Your task to perform on an android device: allow notifications from all sites in the chrome app Image 0: 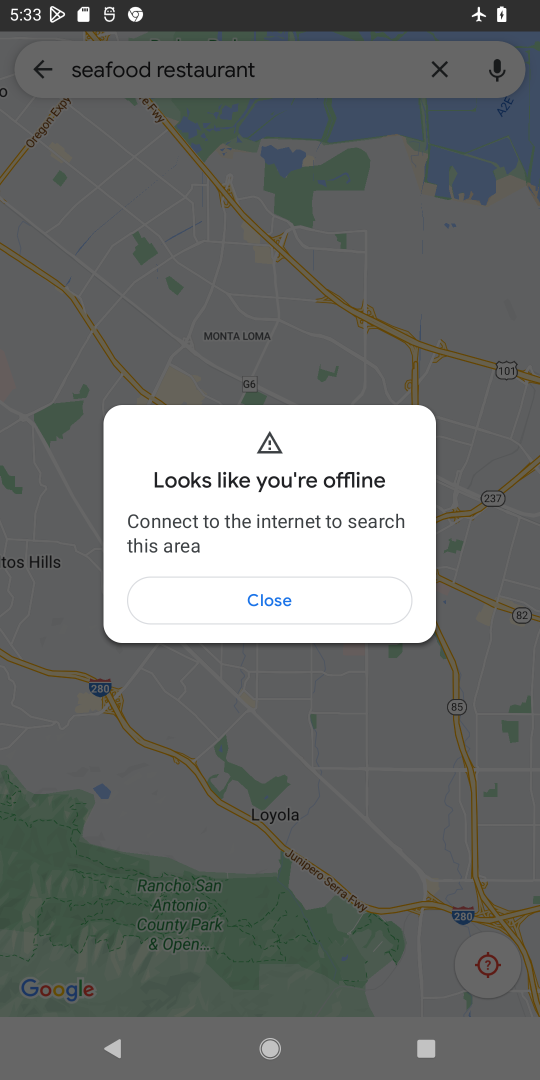
Step 0: press home button
Your task to perform on an android device: allow notifications from all sites in the chrome app Image 1: 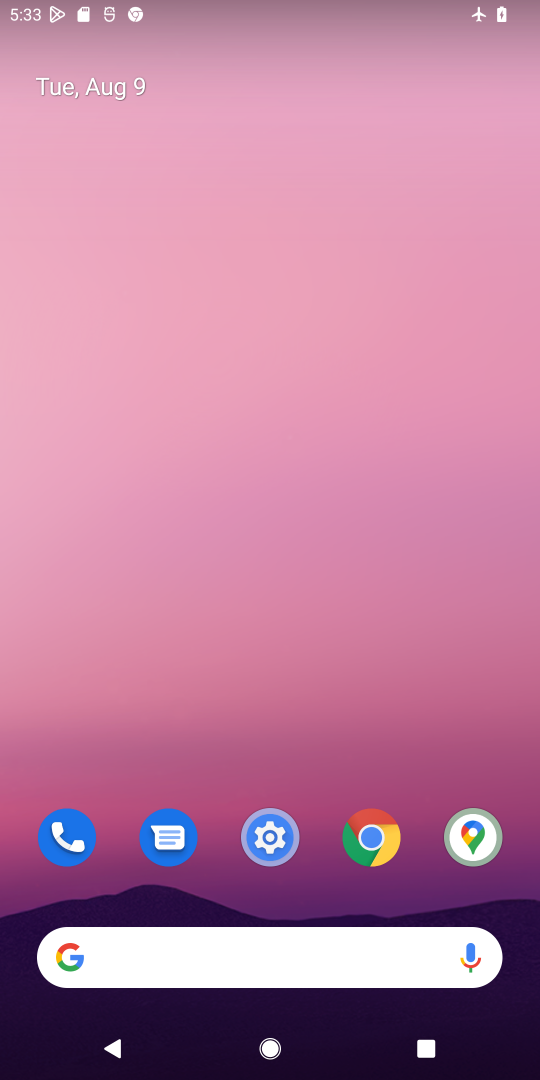
Step 1: drag from (245, 946) to (260, 11)
Your task to perform on an android device: allow notifications from all sites in the chrome app Image 2: 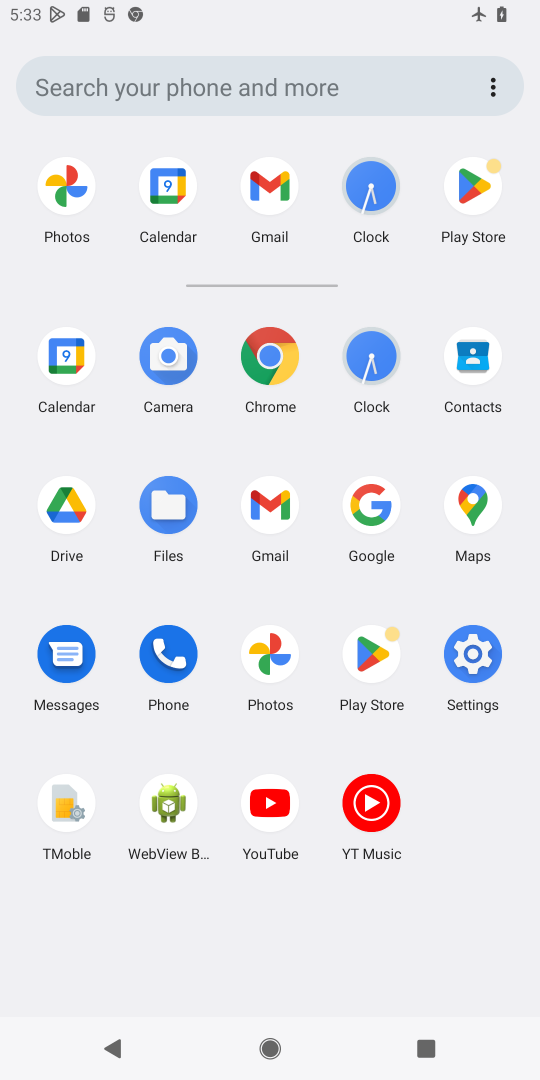
Step 2: click (267, 361)
Your task to perform on an android device: allow notifications from all sites in the chrome app Image 3: 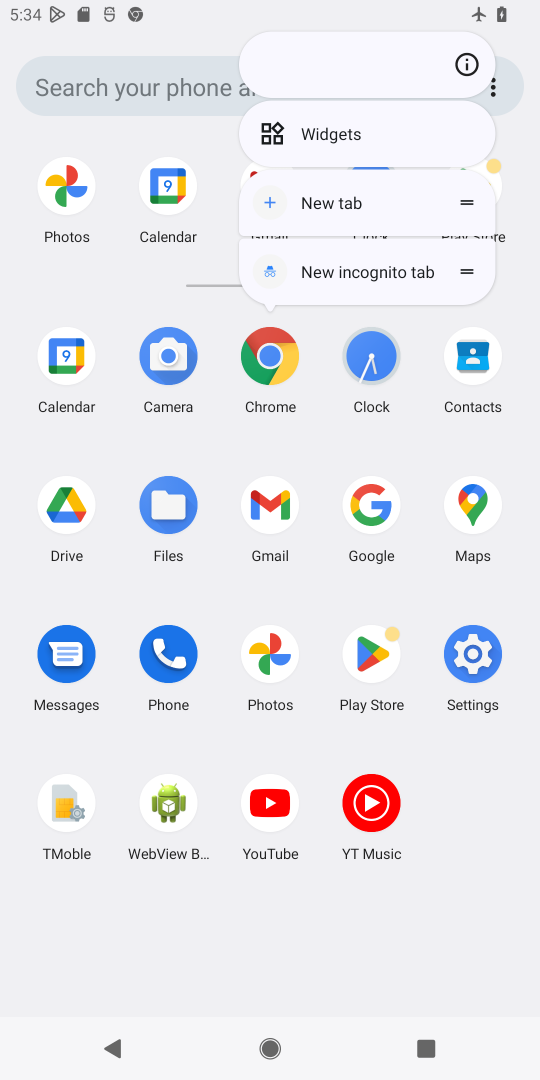
Step 3: click (261, 360)
Your task to perform on an android device: allow notifications from all sites in the chrome app Image 4: 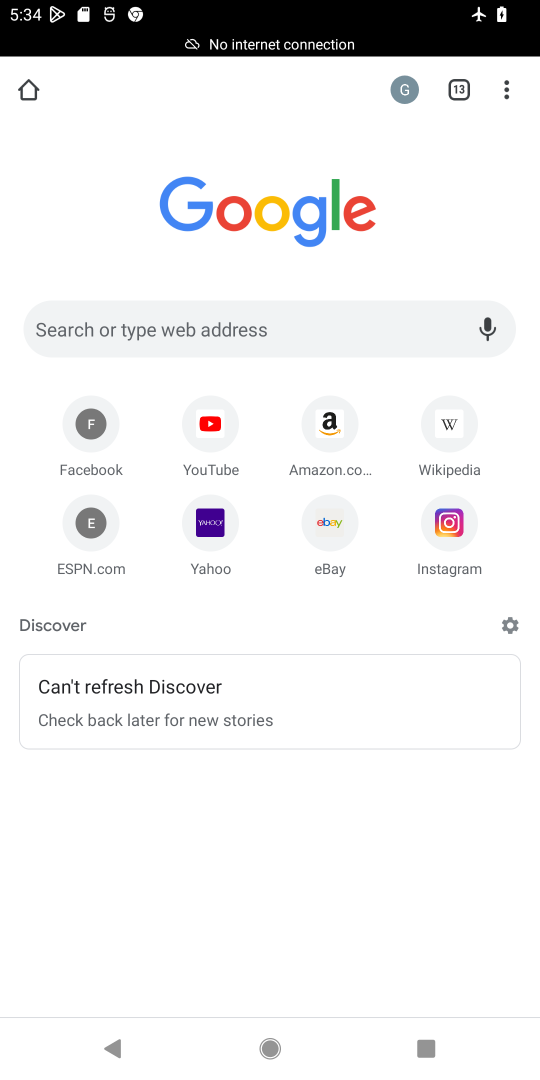
Step 4: click (506, 73)
Your task to perform on an android device: allow notifications from all sites in the chrome app Image 5: 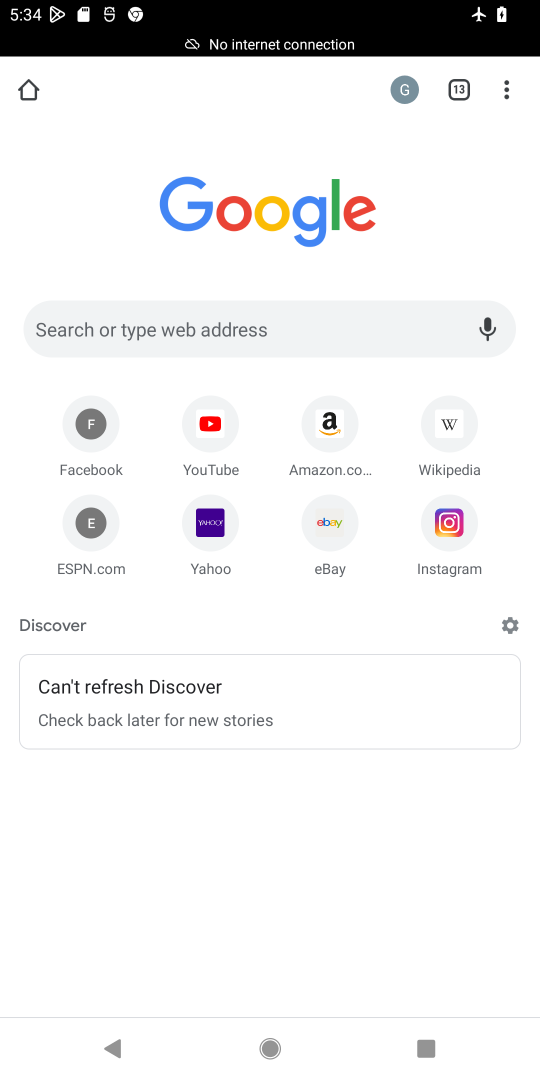
Step 5: click (498, 85)
Your task to perform on an android device: allow notifications from all sites in the chrome app Image 6: 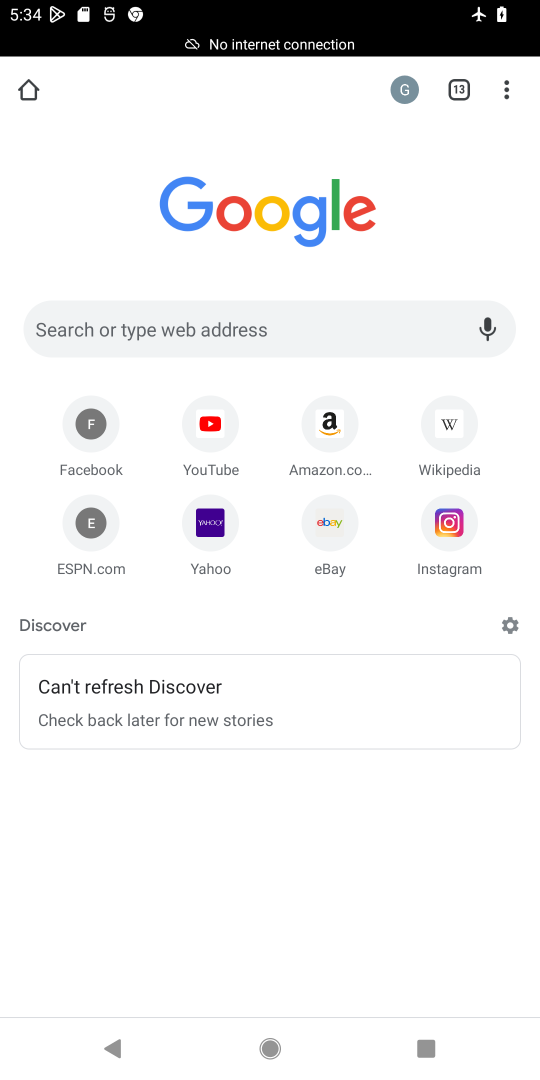
Step 6: click (506, 99)
Your task to perform on an android device: allow notifications from all sites in the chrome app Image 7: 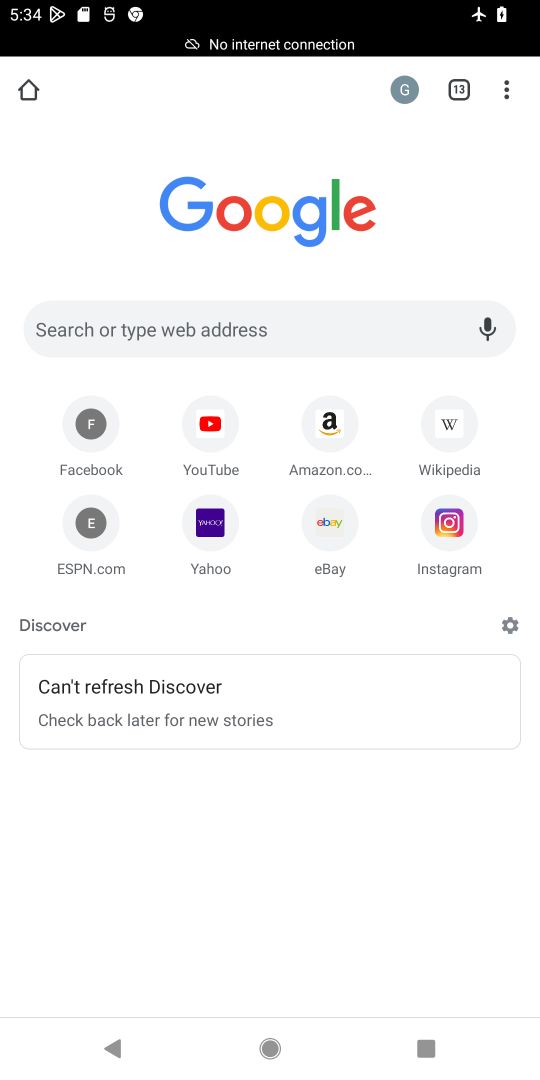
Step 7: click (506, 96)
Your task to perform on an android device: allow notifications from all sites in the chrome app Image 8: 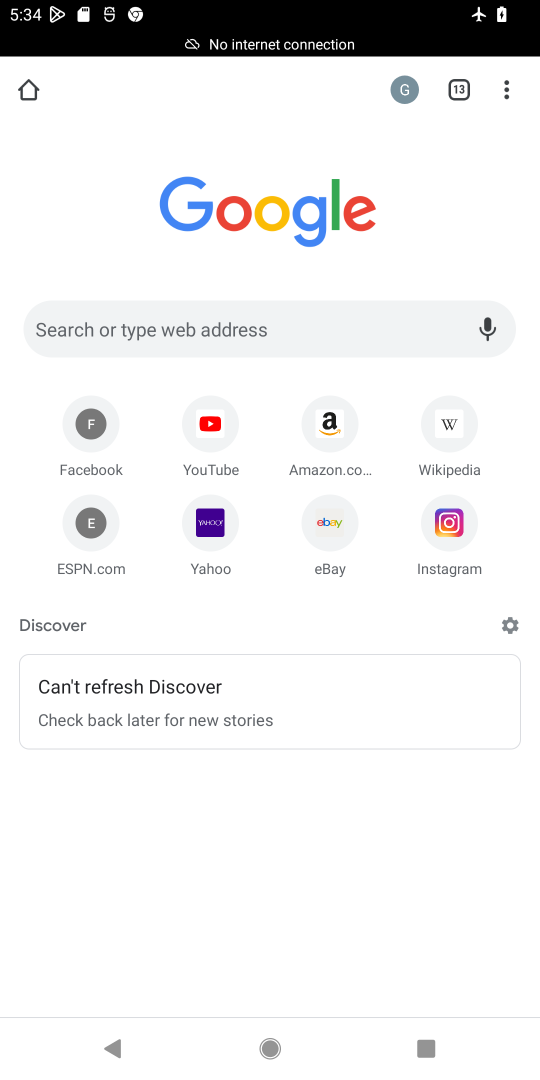
Step 8: click (506, 96)
Your task to perform on an android device: allow notifications from all sites in the chrome app Image 9: 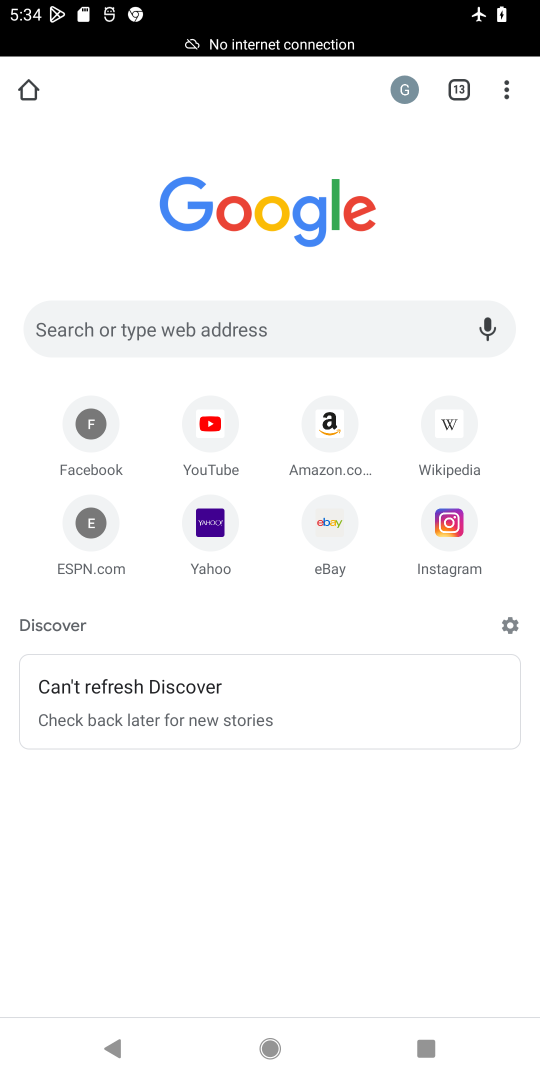
Step 9: click (506, 96)
Your task to perform on an android device: allow notifications from all sites in the chrome app Image 10: 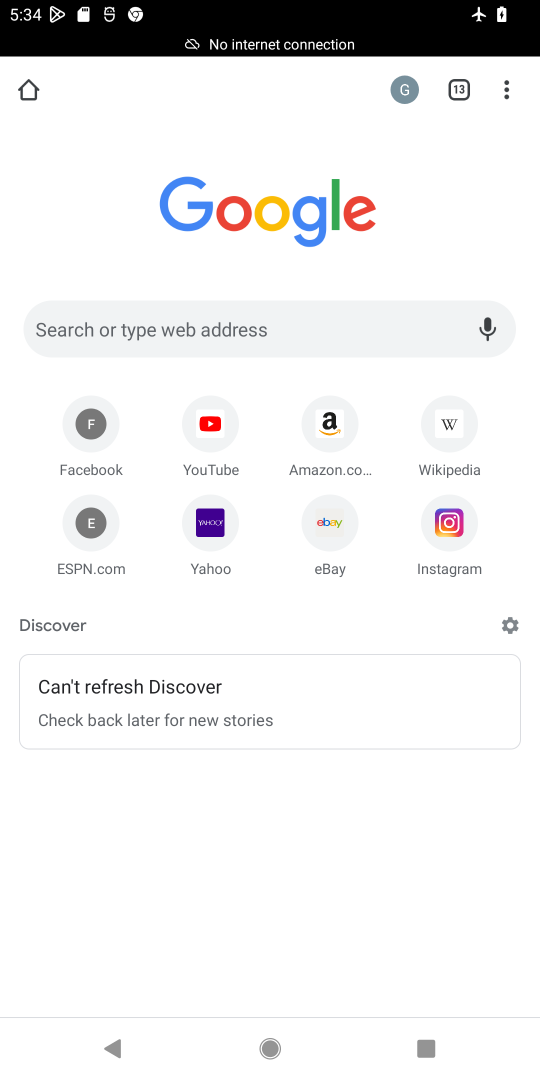
Step 10: click (503, 68)
Your task to perform on an android device: allow notifications from all sites in the chrome app Image 11: 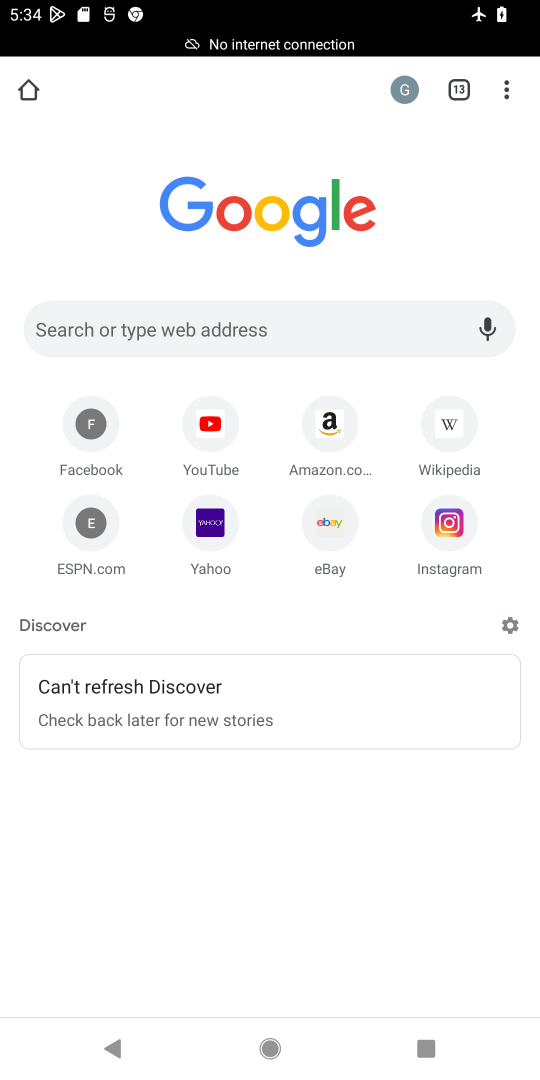
Step 11: click (503, 90)
Your task to perform on an android device: allow notifications from all sites in the chrome app Image 12: 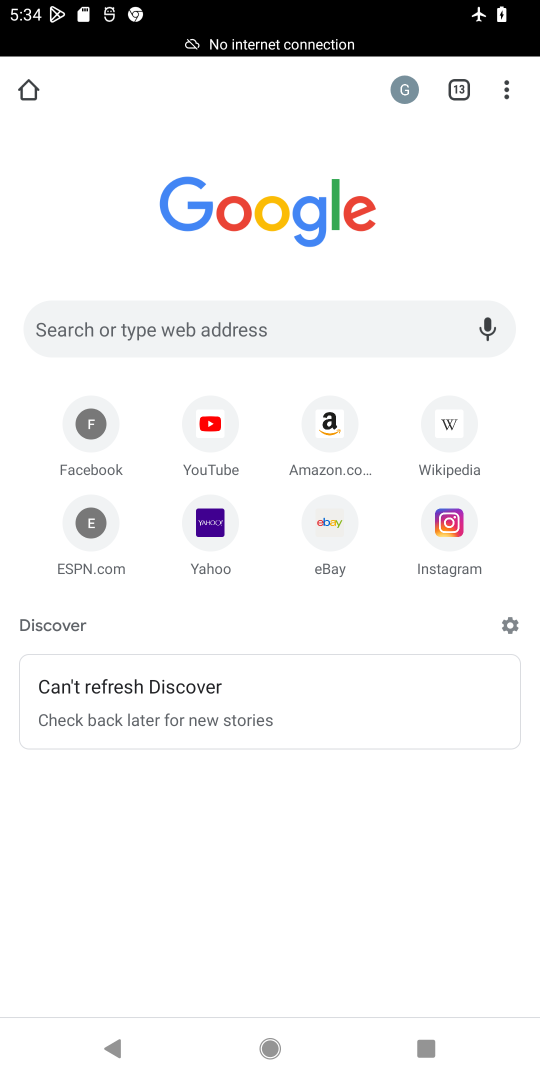
Step 12: click (505, 80)
Your task to perform on an android device: allow notifications from all sites in the chrome app Image 13: 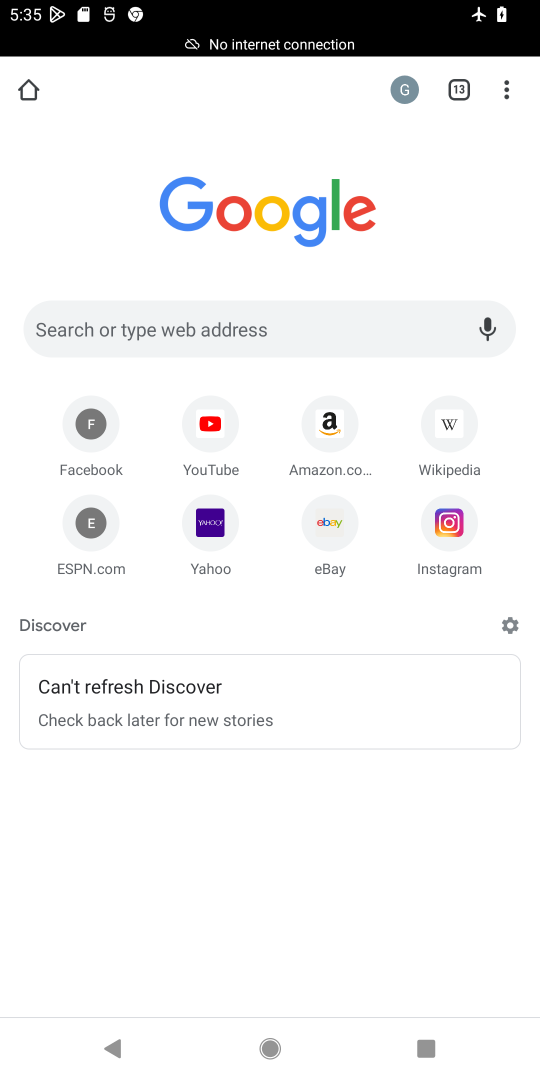
Step 13: click (508, 89)
Your task to perform on an android device: allow notifications from all sites in the chrome app Image 14: 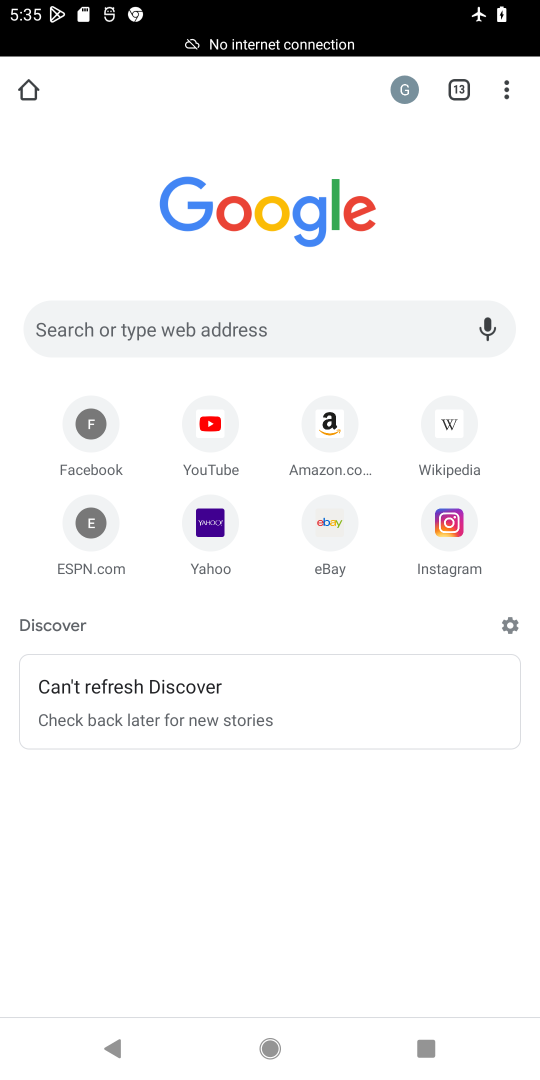
Step 14: click (505, 81)
Your task to perform on an android device: allow notifications from all sites in the chrome app Image 15: 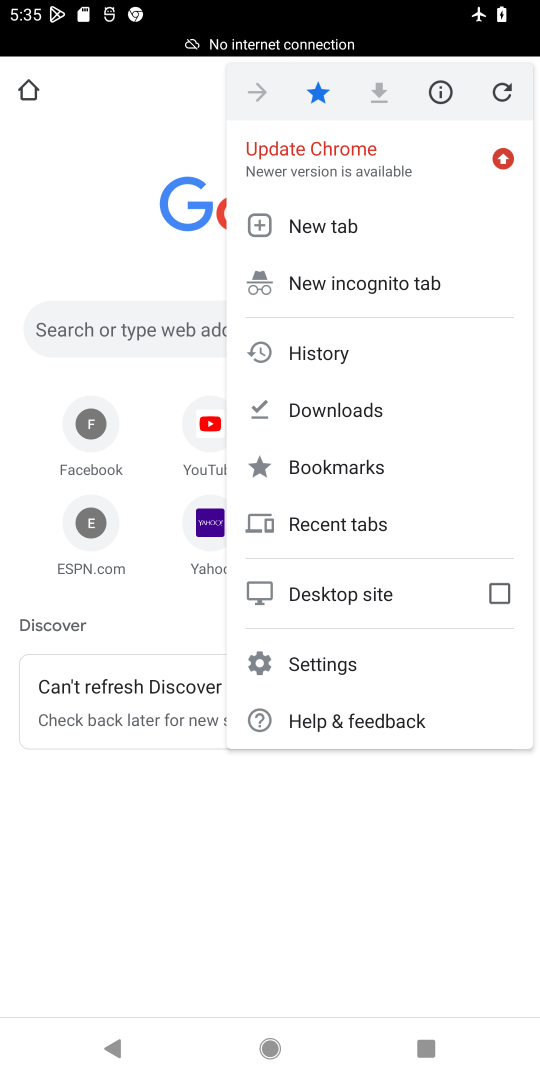
Step 15: click (340, 652)
Your task to perform on an android device: allow notifications from all sites in the chrome app Image 16: 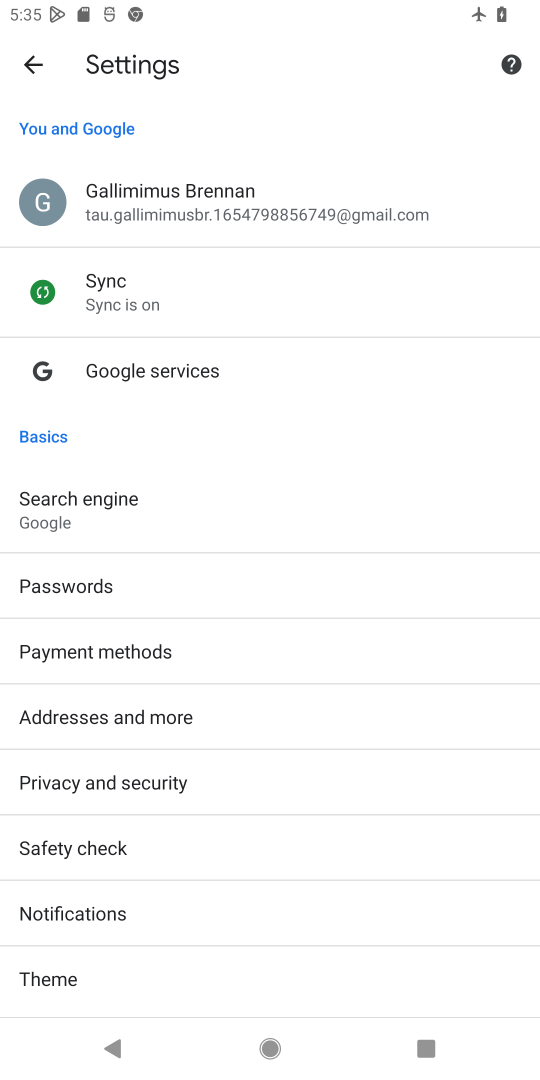
Step 16: drag from (160, 974) to (218, 327)
Your task to perform on an android device: allow notifications from all sites in the chrome app Image 17: 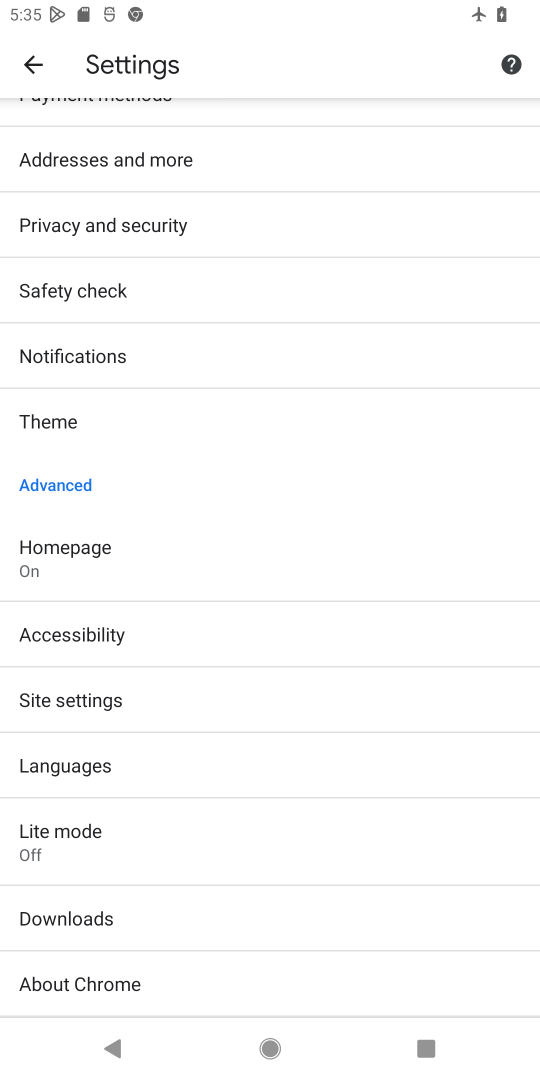
Step 17: click (101, 689)
Your task to perform on an android device: allow notifications from all sites in the chrome app Image 18: 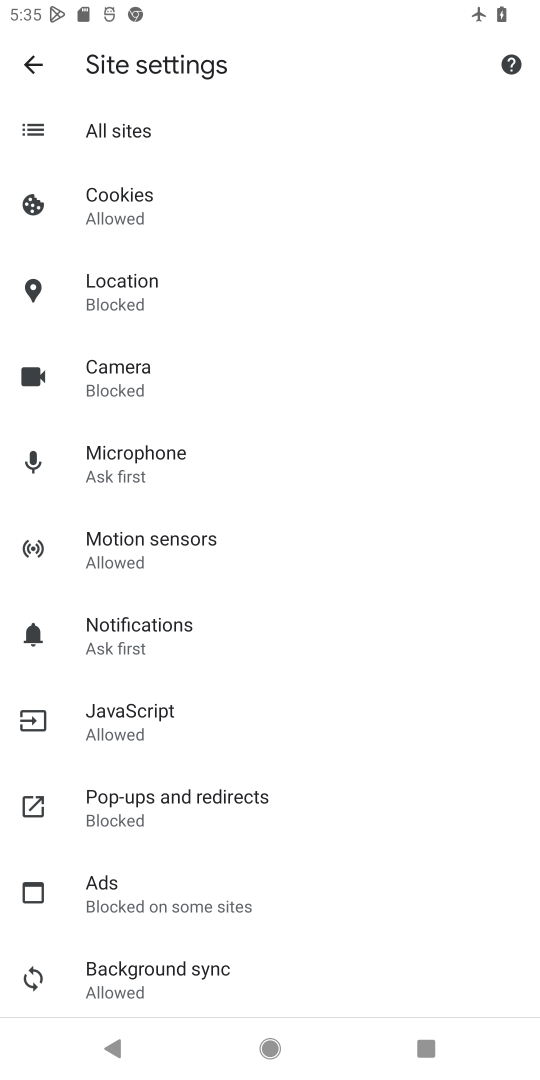
Step 18: click (119, 185)
Your task to perform on an android device: allow notifications from all sites in the chrome app Image 19: 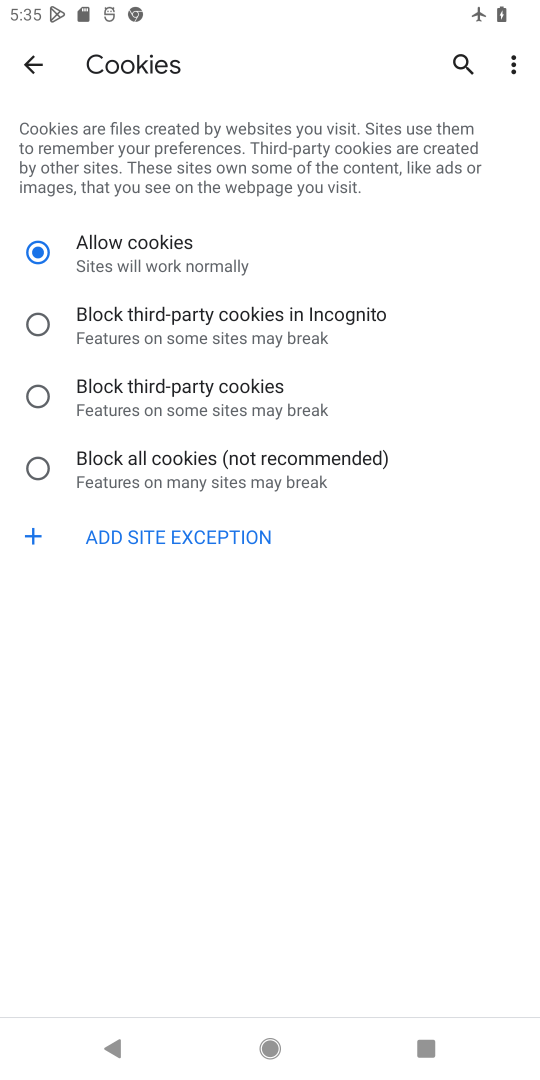
Step 19: click (23, 47)
Your task to perform on an android device: allow notifications from all sites in the chrome app Image 20: 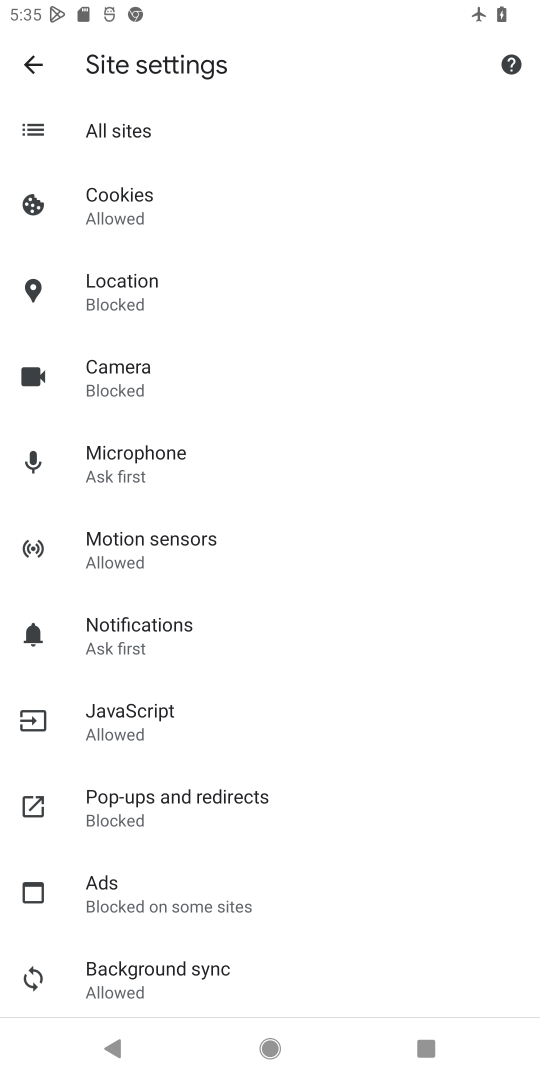
Step 20: click (128, 295)
Your task to perform on an android device: allow notifications from all sites in the chrome app Image 21: 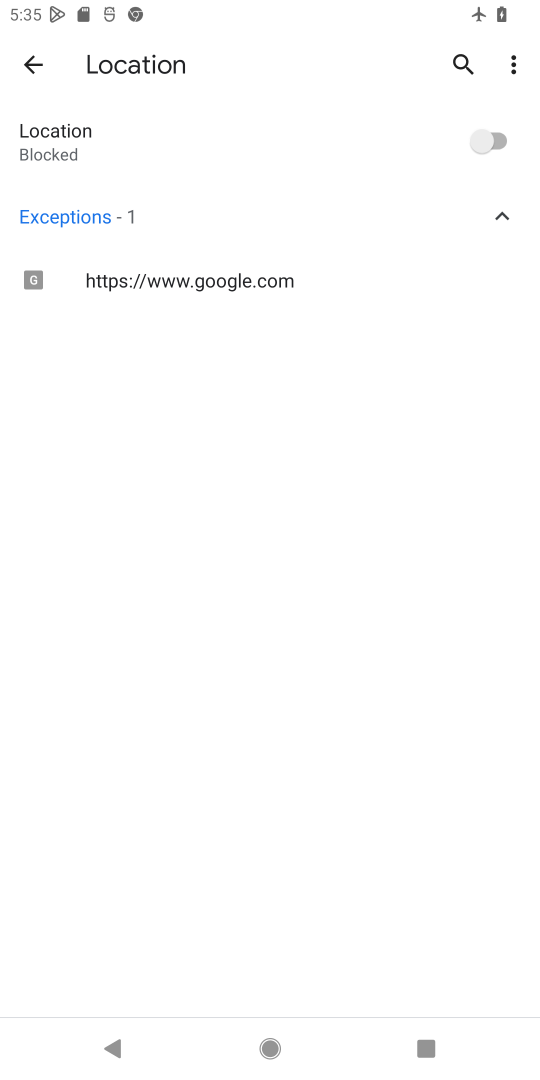
Step 21: click (34, 51)
Your task to perform on an android device: allow notifications from all sites in the chrome app Image 22: 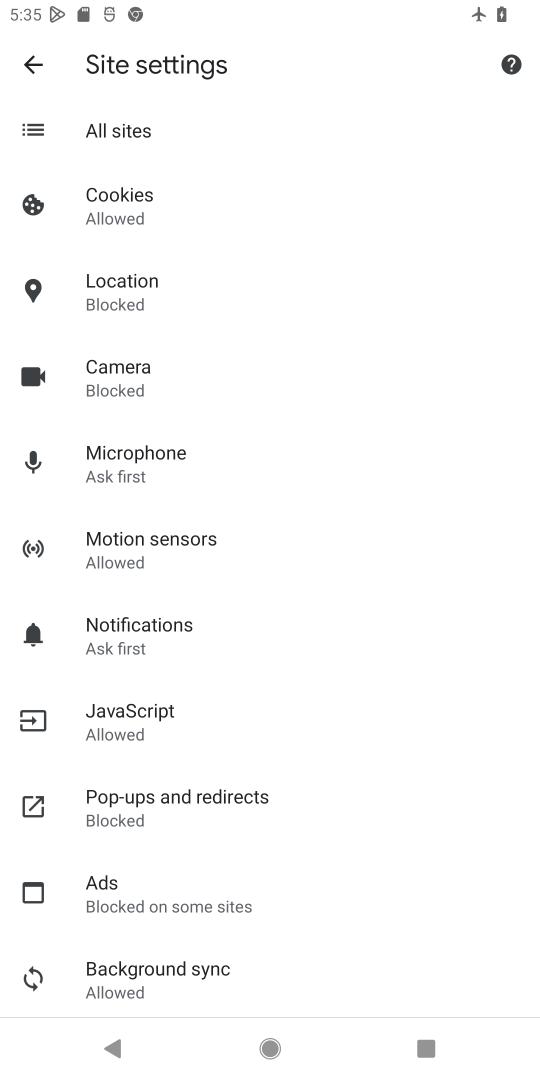
Step 22: click (250, 287)
Your task to perform on an android device: allow notifications from all sites in the chrome app Image 23: 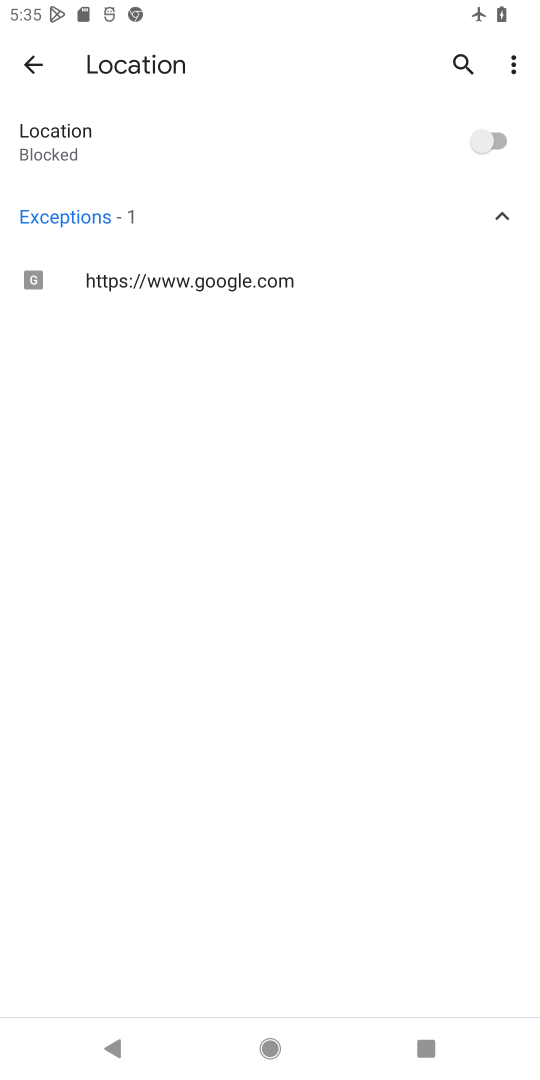
Step 23: click (476, 148)
Your task to perform on an android device: allow notifications from all sites in the chrome app Image 24: 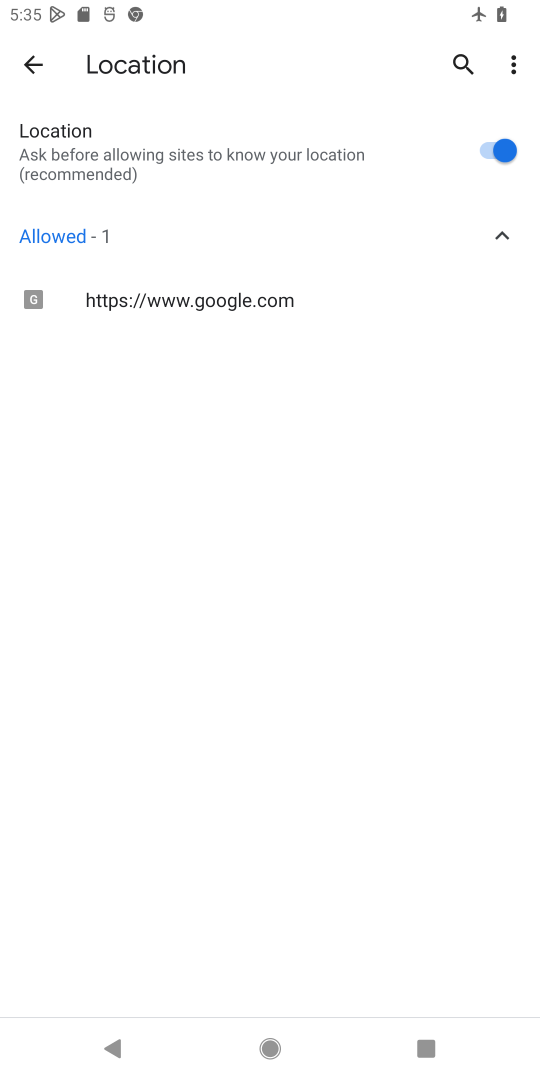
Step 24: click (43, 64)
Your task to perform on an android device: allow notifications from all sites in the chrome app Image 25: 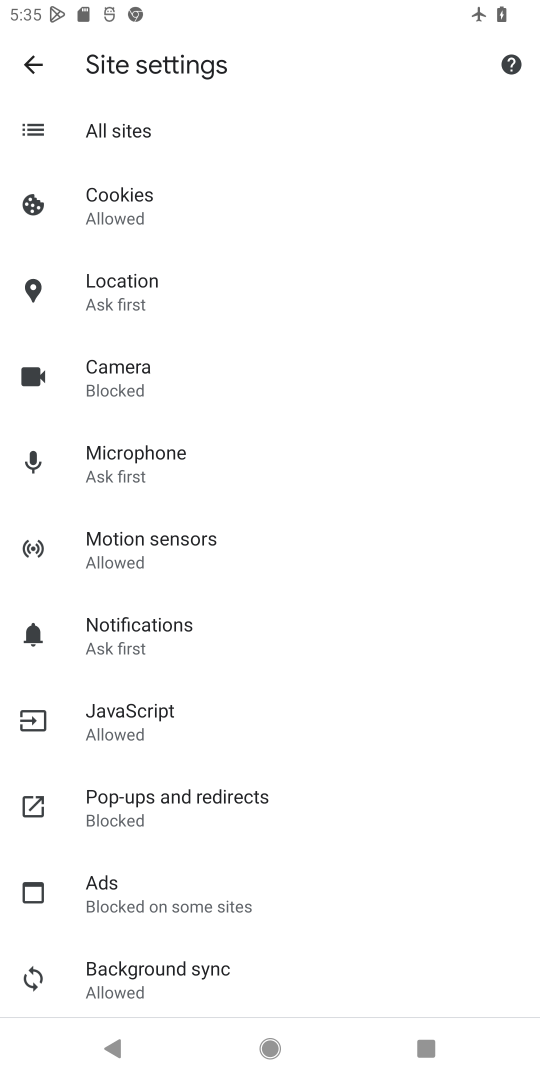
Step 25: click (157, 471)
Your task to perform on an android device: allow notifications from all sites in the chrome app Image 26: 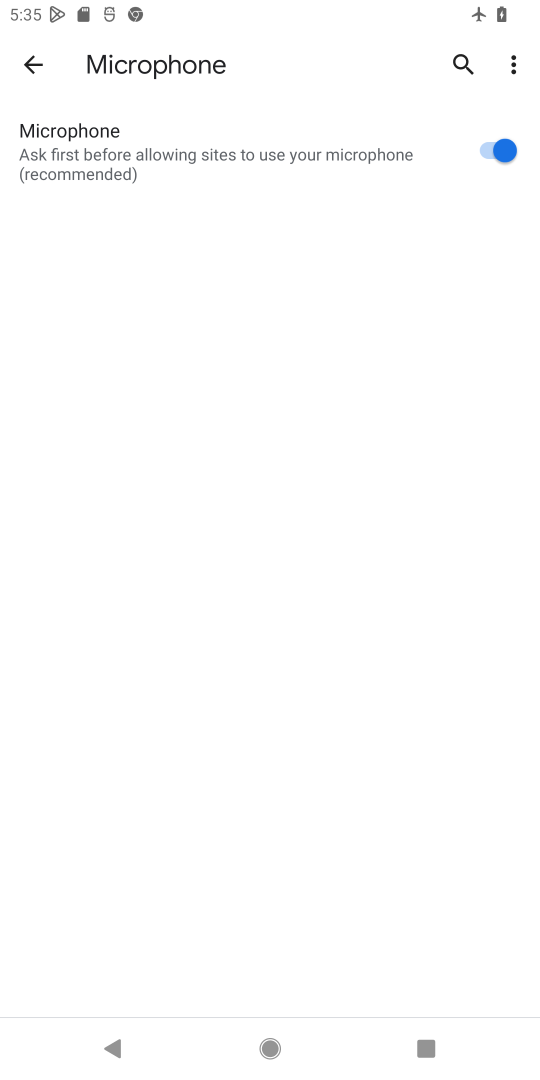
Step 26: click (50, 63)
Your task to perform on an android device: allow notifications from all sites in the chrome app Image 27: 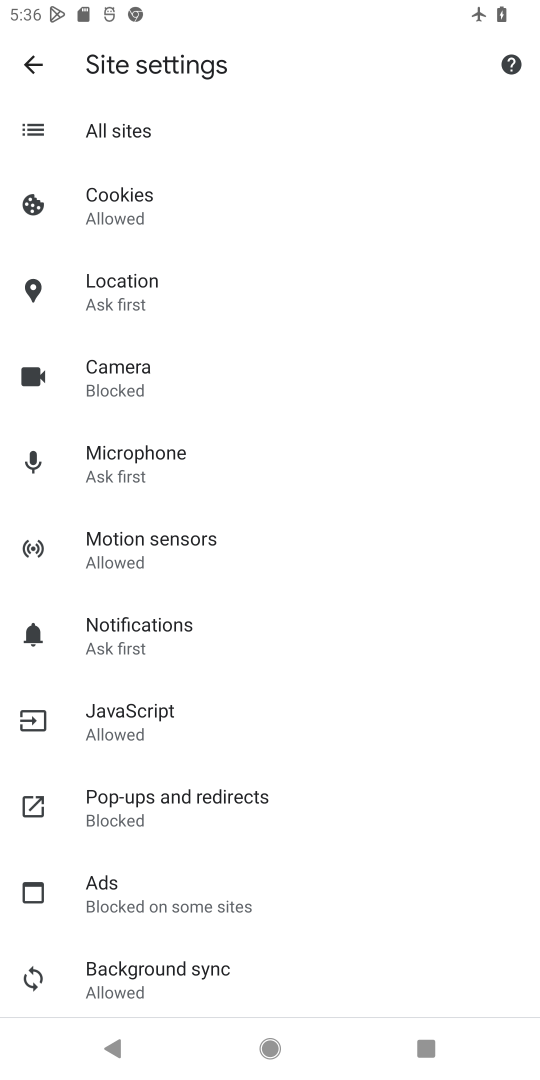
Step 27: task complete